Your task to perform on an android device: Open Google Chrome and click the shortcut for Amazon.com Image 0: 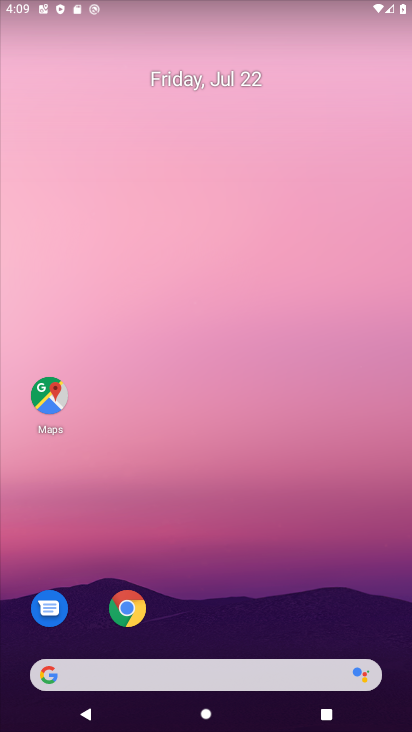
Step 0: click (128, 613)
Your task to perform on an android device: Open Google Chrome and click the shortcut for Amazon.com Image 1: 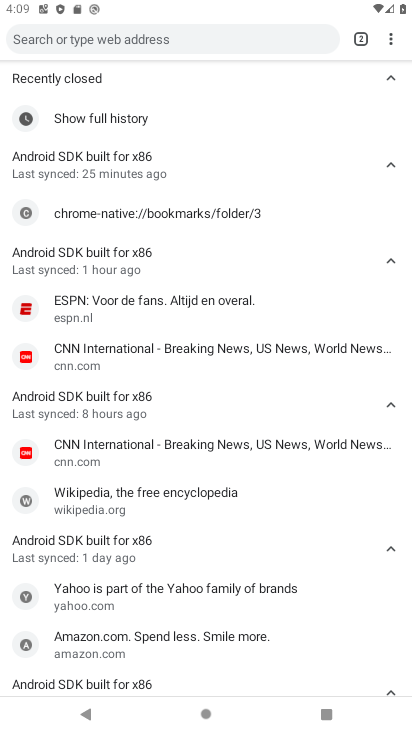
Step 1: click (386, 48)
Your task to perform on an android device: Open Google Chrome and click the shortcut for Amazon.com Image 2: 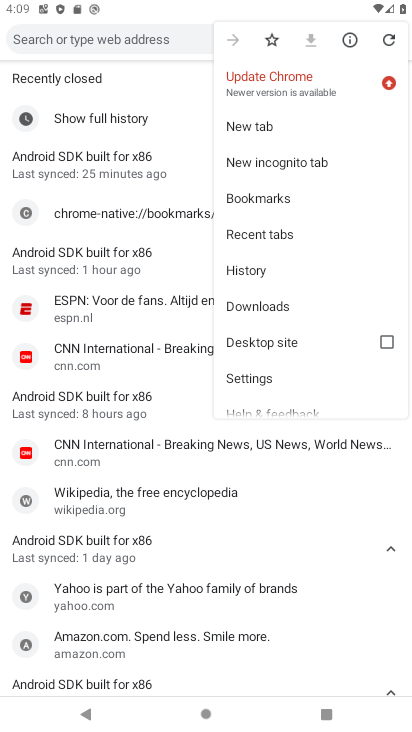
Step 2: click (251, 126)
Your task to perform on an android device: Open Google Chrome and click the shortcut for Amazon.com Image 3: 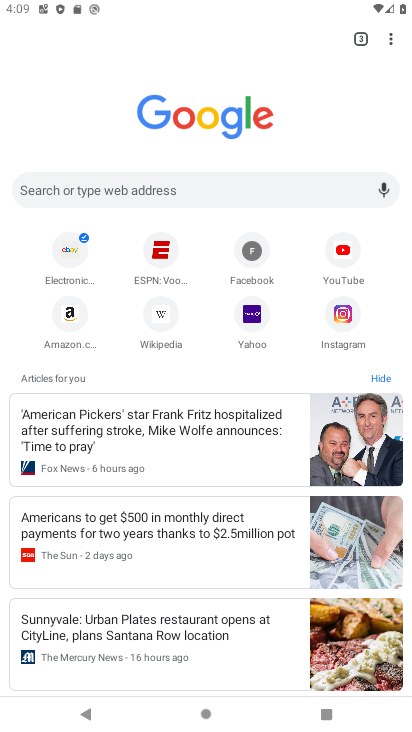
Step 3: click (72, 325)
Your task to perform on an android device: Open Google Chrome and click the shortcut for Amazon.com Image 4: 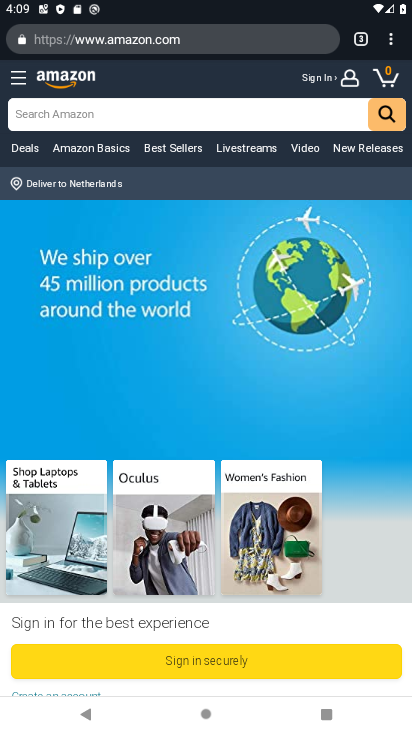
Step 4: task complete